Your task to perform on an android device: When is my next meeting? Image 0: 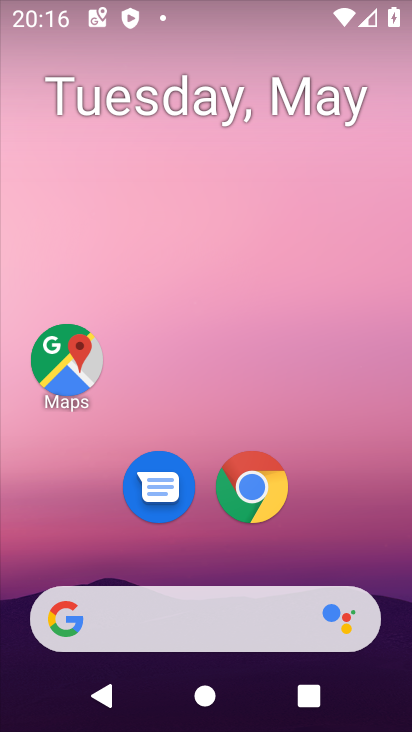
Step 0: drag from (370, 540) to (326, 8)
Your task to perform on an android device: When is my next meeting? Image 1: 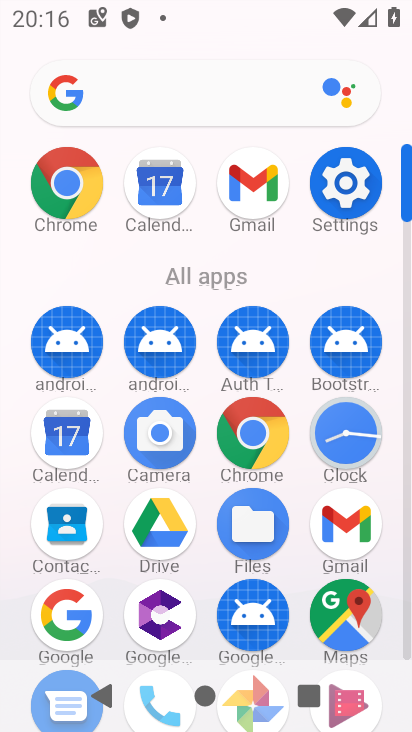
Step 1: click (74, 431)
Your task to perform on an android device: When is my next meeting? Image 2: 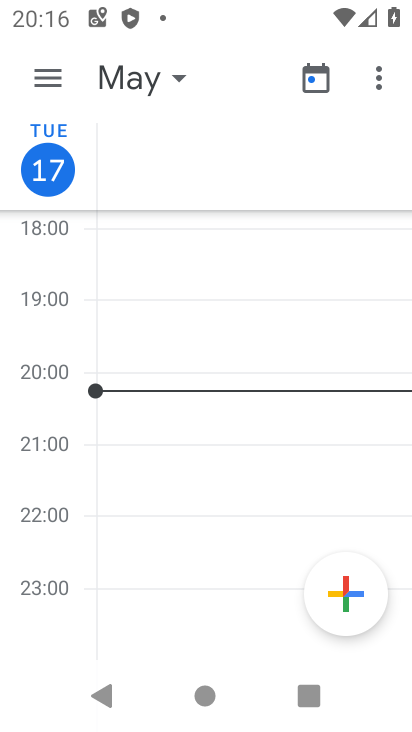
Step 2: click (50, 86)
Your task to perform on an android device: When is my next meeting? Image 3: 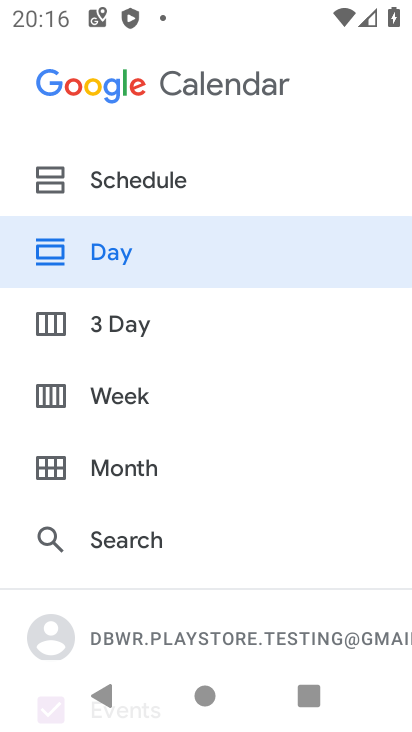
Step 3: click (167, 476)
Your task to perform on an android device: When is my next meeting? Image 4: 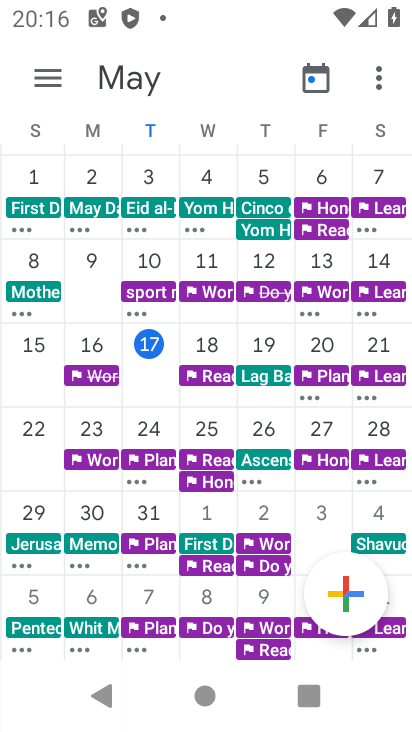
Step 4: task complete